Your task to perform on an android device: Go to internet settings Image 0: 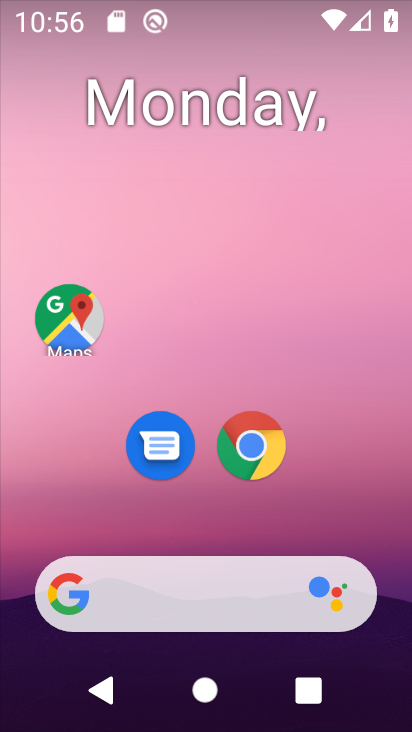
Step 0: drag from (233, 502) to (285, 338)
Your task to perform on an android device: Go to internet settings Image 1: 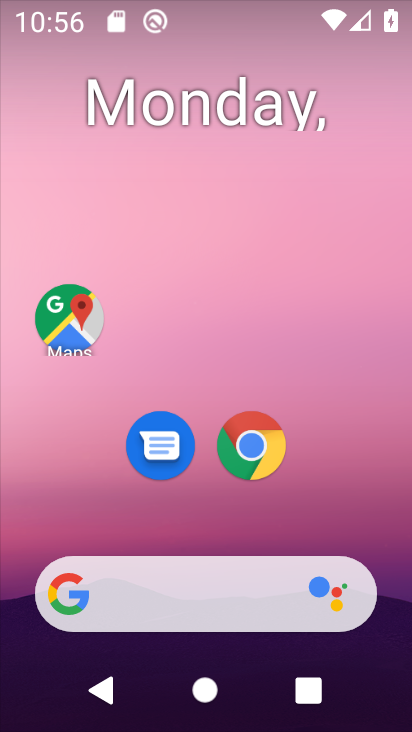
Step 1: drag from (166, 548) to (270, 335)
Your task to perform on an android device: Go to internet settings Image 2: 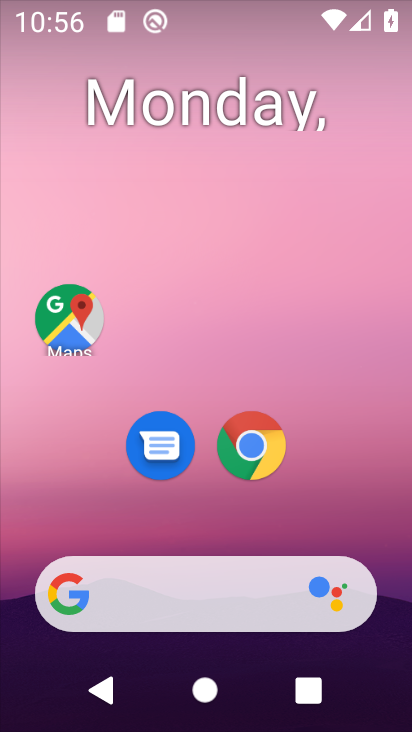
Step 2: drag from (214, 550) to (338, 101)
Your task to perform on an android device: Go to internet settings Image 3: 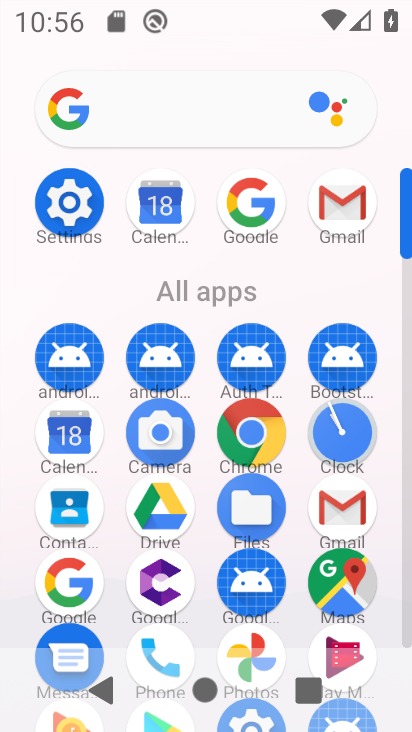
Step 3: click (65, 194)
Your task to perform on an android device: Go to internet settings Image 4: 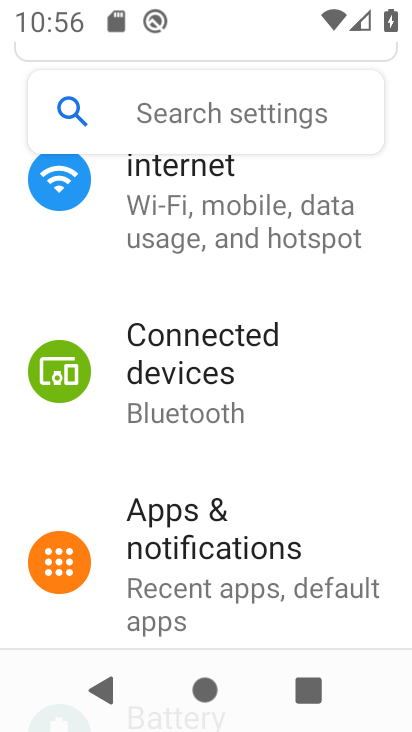
Step 4: click (164, 173)
Your task to perform on an android device: Go to internet settings Image 5: 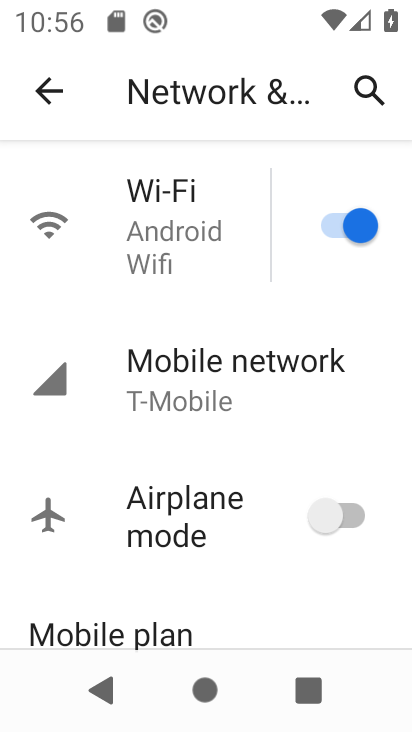
Step 5: drag from (234, 541) to (281, 251)
Your task to perform on an android device: Go to internet settings Image 6: 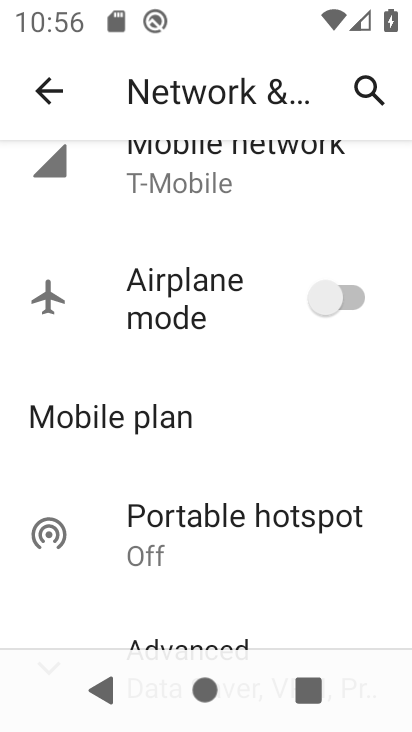
Step 6: drag from (226, 578) to (296, 393)
Your task to perform on an android device: Go to internet settings Image 7: 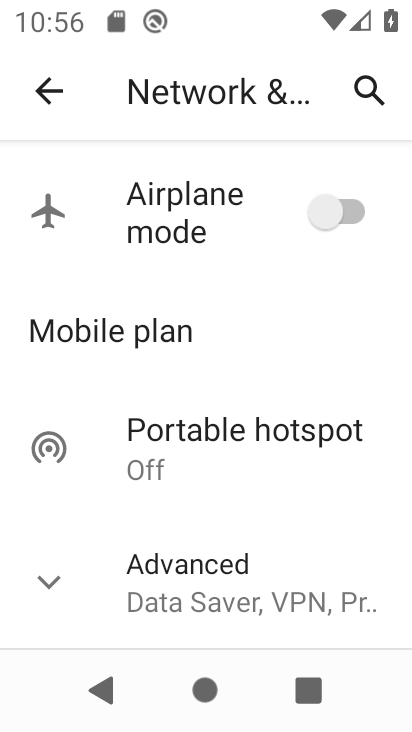
Step 7: click (198, 593)
Your task to perform on an android device: Go to internet settings Image 8: 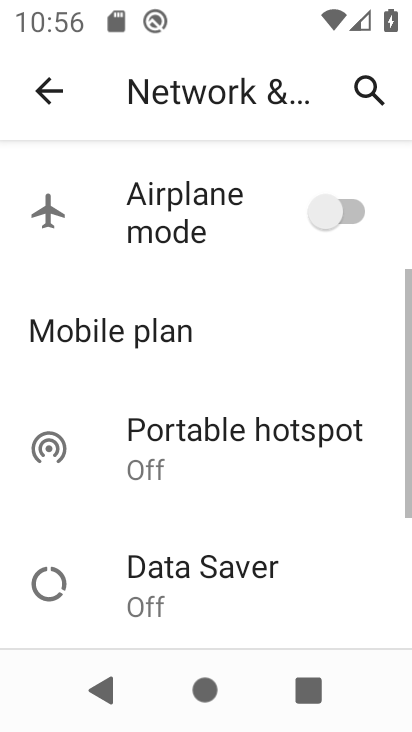
Step 8: task complete